Your task to perform on an android device: Search for the best rated mattress topper on Target. Image 0: 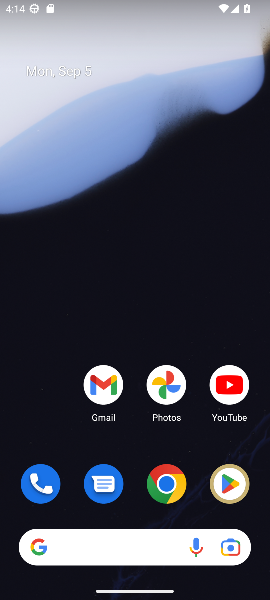
Step 0: click (164, 484)
Your task to perform on an android device: Search for the best rated mattress topper on Target. Image 1: 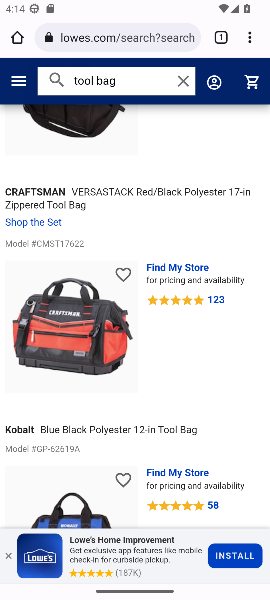
Step 1: click (177, 37)
Your task to perform on an android device: Search for the best rated mattress topper on Target. Image 2: 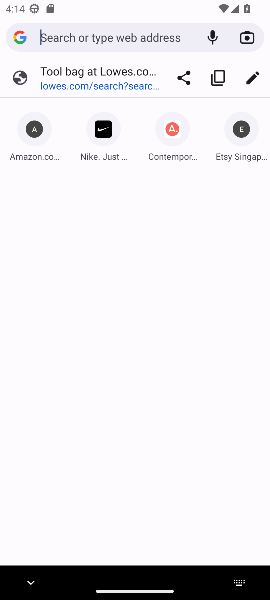
Step 2: type "Target"
Your task to perform on an android device: Search for the best rated mattress topper on Target. Image 3: 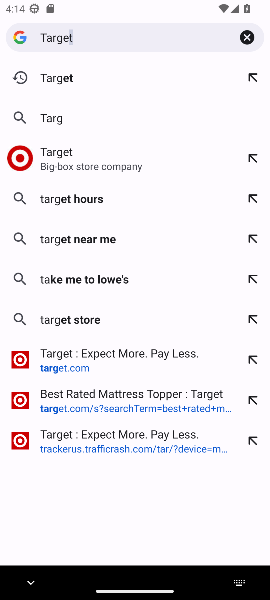
Step 3: press enter
Your task to perform on an android device: Search for the best rated mattress topper on Target. Image 4: 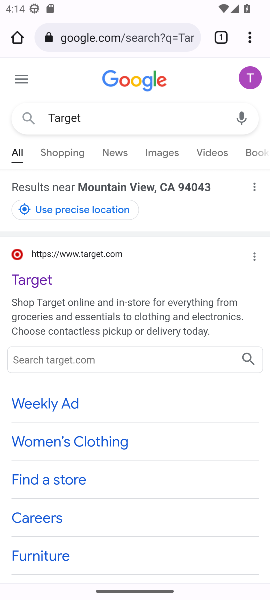
Step 4: click (26, 277)
Your task to perform on an android device: Search for the best rated mattress topper on Target. Image 5: 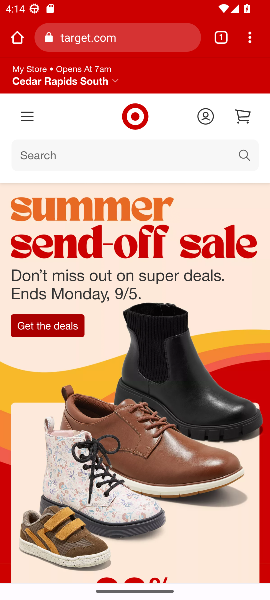
Step 5: click (36, 155)
Your task to perform on an android device: Search for the best rated mattress topper on Target. Image 6: 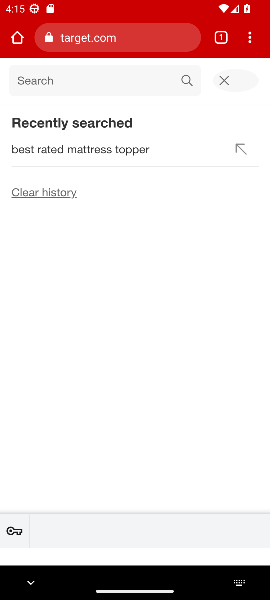
Step 6: type "mattress topper"
Your task to perform on an android device: Search for the best rated mattress topper on Target. Image 7: 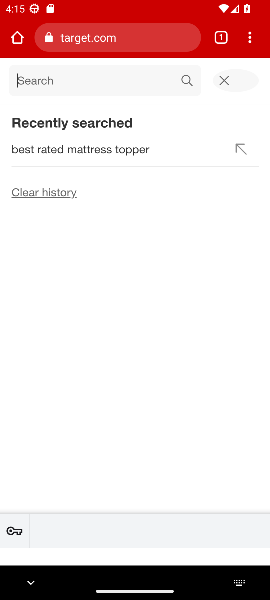
Step 7: press enter
Your task to perform on an android device: Search for the best rated mattress topper on Target. Image 8: 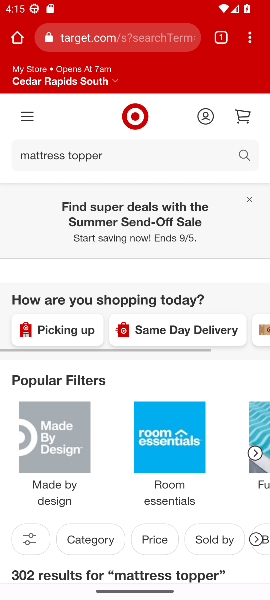
Step 8: task complete